Your task to perform on an android device: Open Reddit.com Image 0: 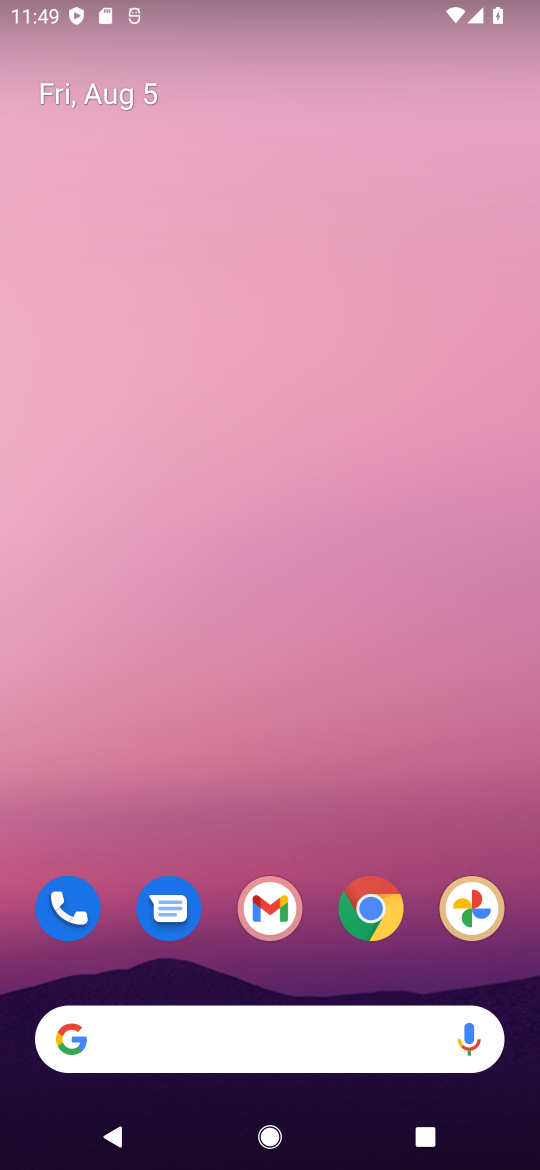
Step 0: drag from (303, 944) to (404, 64)
Your task to perform on an android device: Open Reddit.com Image 1: 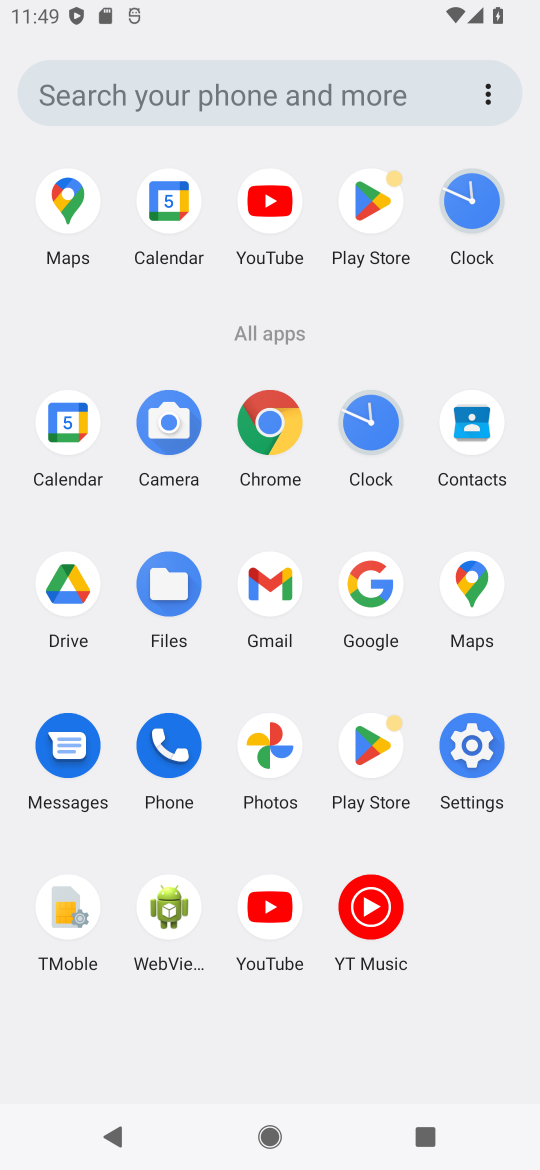
Step 1: click (261, 428)
Your task to perform on an android device: Open Reddit.com Image 2: 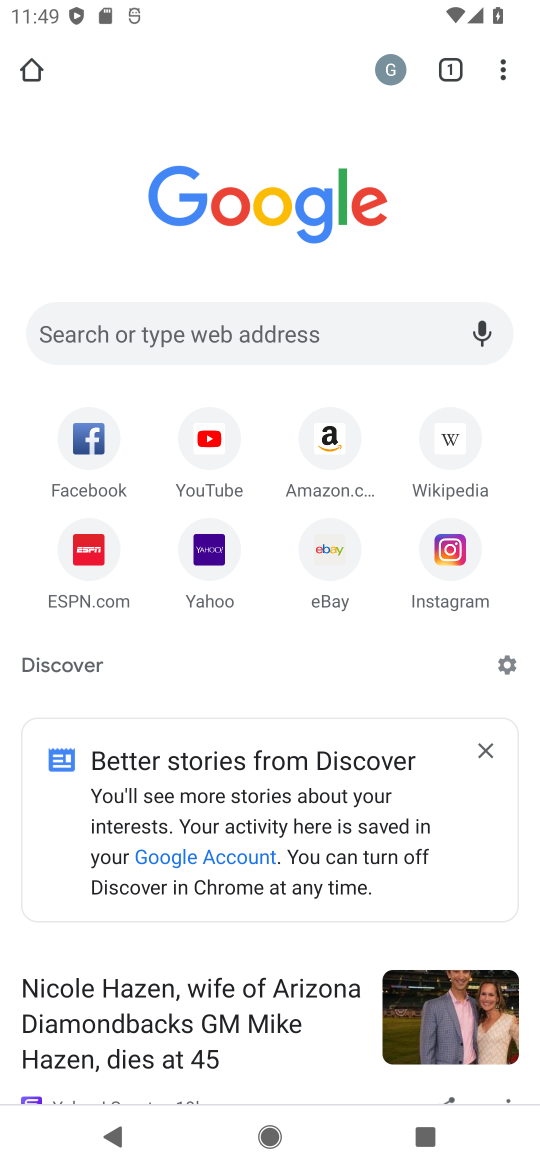
Step 2: click (319, 319)
Your task to perform on an android device: Open Reddit.com Image 3: 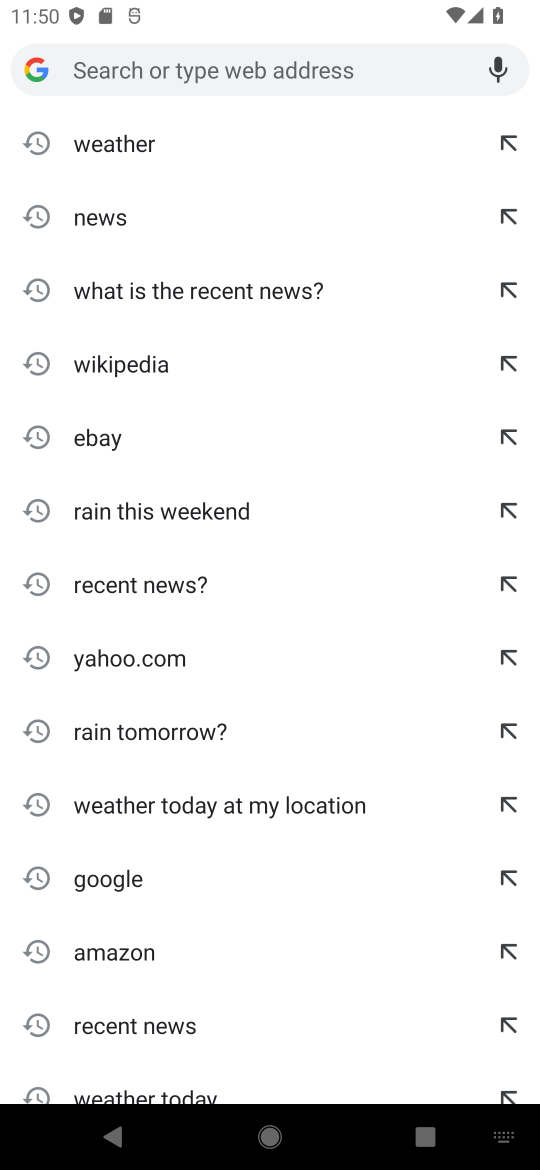
Step 3: type "reddit.com"
Your task to perform on an android device: Open Reddit.com Image 4: 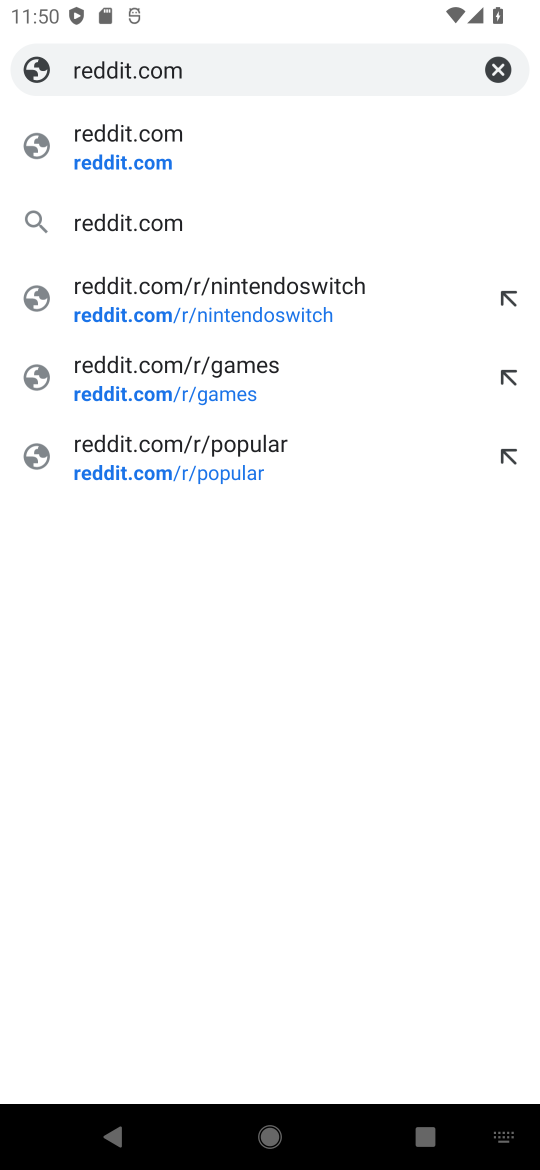
Step 4: click (178, 128)
Your task to perform on an android device: Open Reddit.com Image 5: 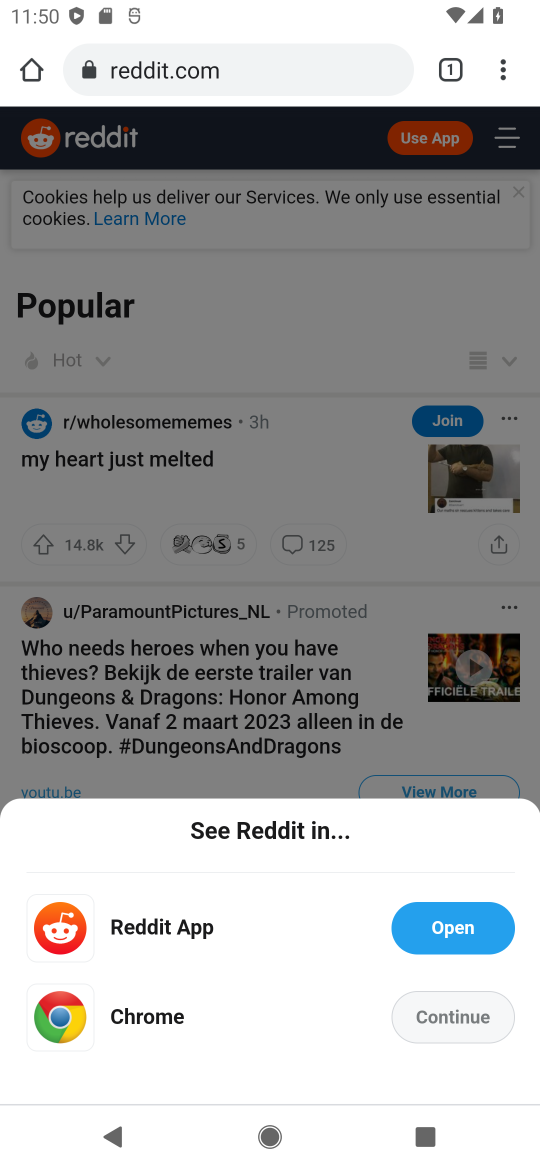
Step 5: task complete